Your task to perform on an android device: toggle notifications settings in the gmail app Image 0: 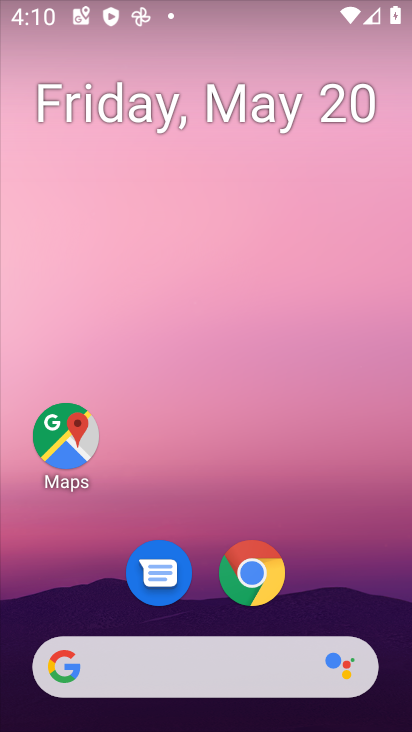
Step 0: drag from (390, 632) to (326, 86)
Your task to perform on an android device: toggle notifications settings in the gmail app Image 1: 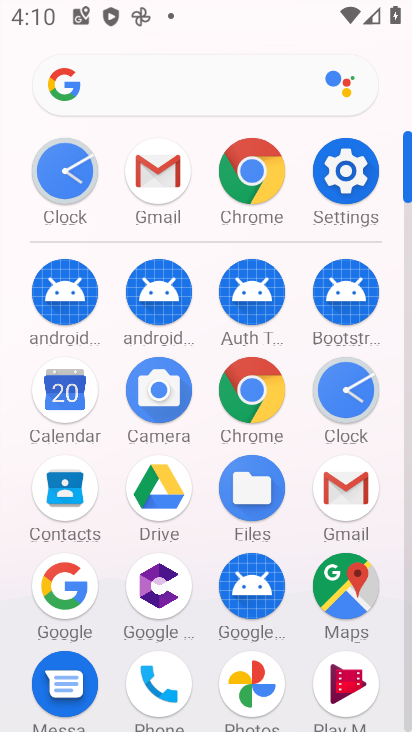
Step 1: click (410, 707)
Your task to perform on an android device: toggle notifications settings in the gmail app Image 2: 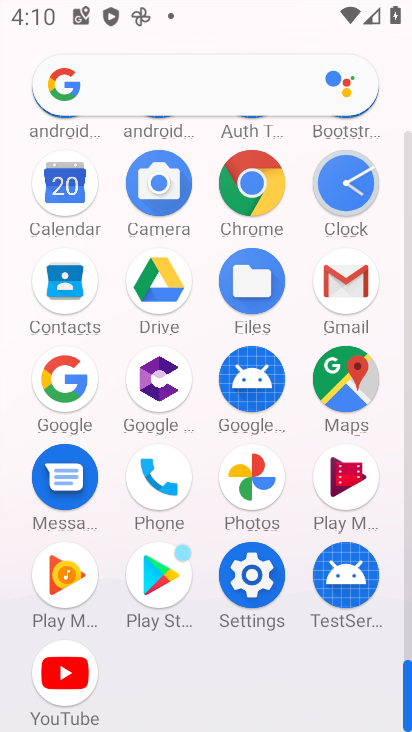
Step 2: click (345, 286)
Your task to perform on an android device: toggle notifications settings in the gmail app Image 3: 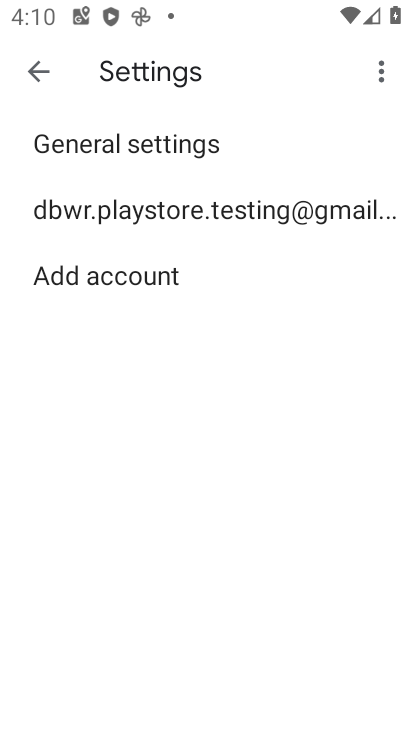
Step 3: click (147, 208)
Your task to perform on an android device: toggle notifications settings in the gmail app Image 4: 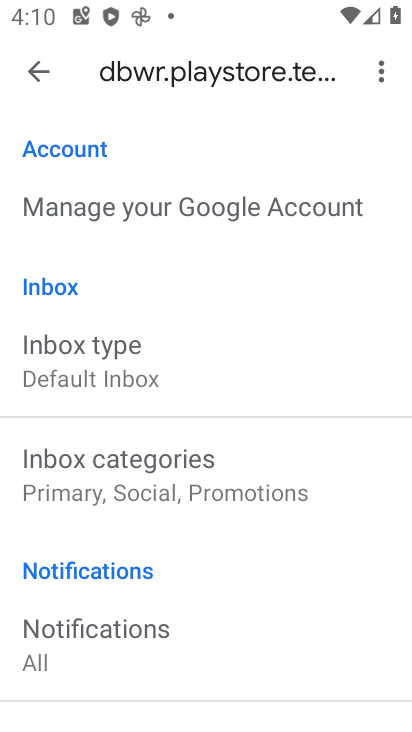
Step 4: drag from (288, 556) to (274, 258)
Your task to perform on an android device: toggle notifications settings in the gmail app Image 5: 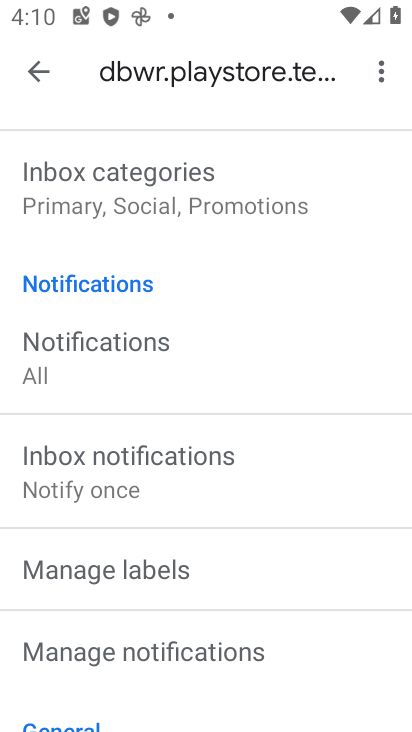
Step 5: drag from (264, 550) to (279, 238)
Your task to perform on an android device: toggle notifications settings in the gmail app Image 6: 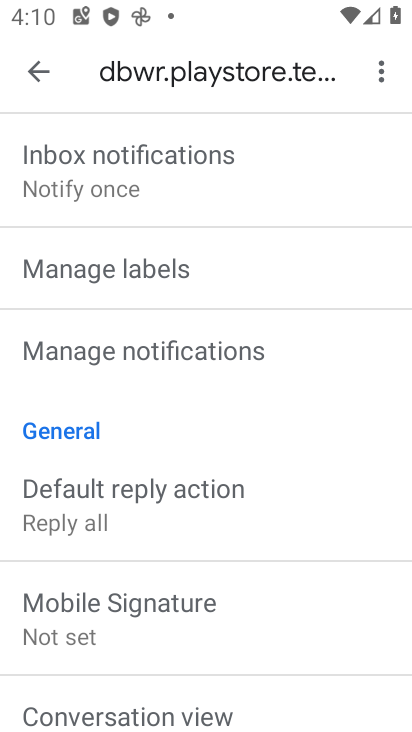
Step 6: click (114, 345)
Your task to perform on an android device: toggle notifications settings in the gmail app Image 7: 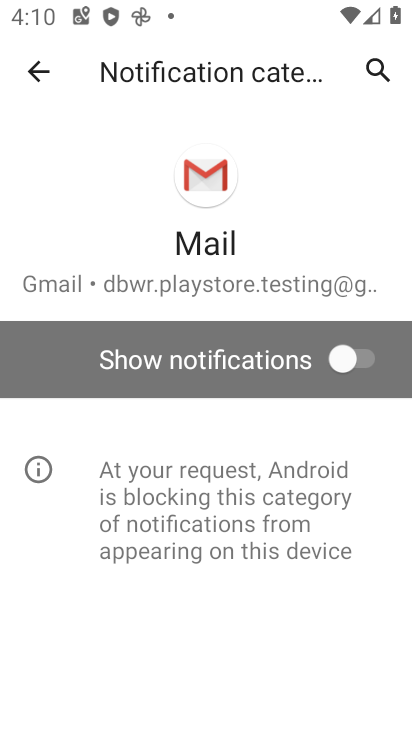
Step 7: click (368, 358)
Your task to perform on an android device: toggle notifications settings in the gmail app Image 8: 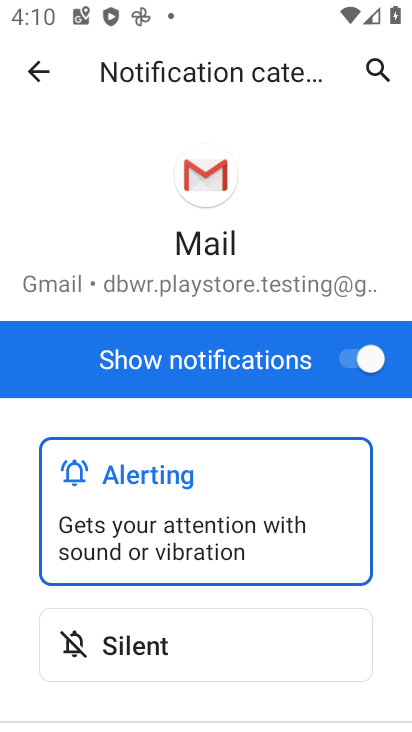
Step 8: task complete